Your task to perform on an android device: Open the map Image 0: 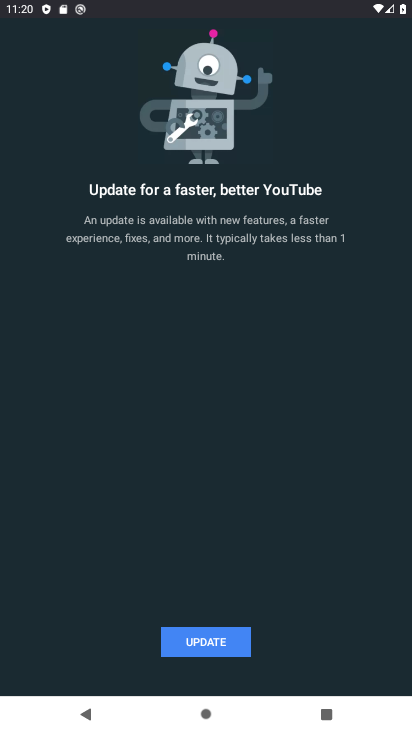
Step 0: press home button
Your task to perform on an android device: Open the map Image 1: 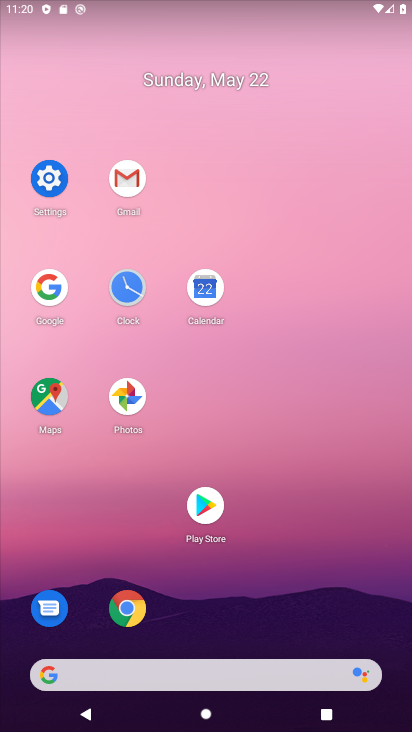
Step 1: click (41, 408)
Your task to perform on an android device: Open the map Image 2: 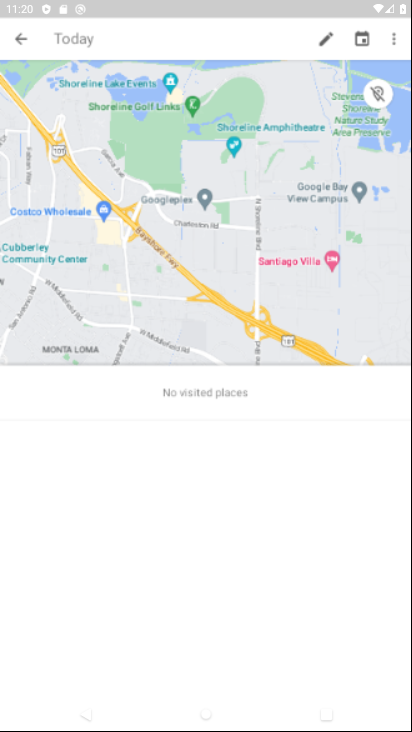
Step 2: task complete